Your task to perform on an android device: add a contact in the contacts app Image 0: 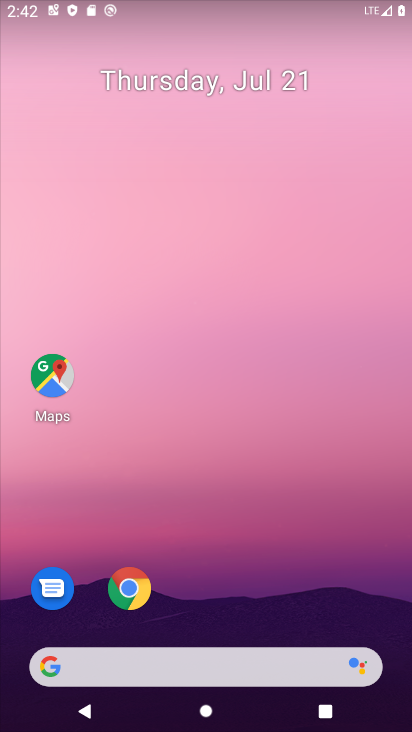
Step 0: drag from (209, 624) to (270, 262)
Your task to perform on an android device: add a contact in the contacts app Image 1: 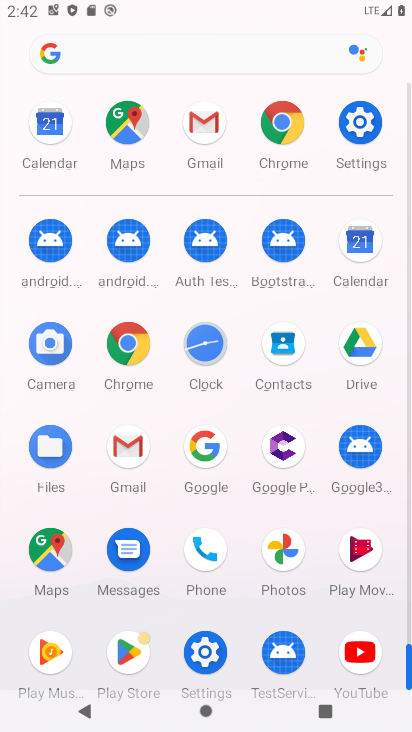
Step 1: click (290, 341)
Your task to perform on an android device: add a contact in the contacts app Image 2: 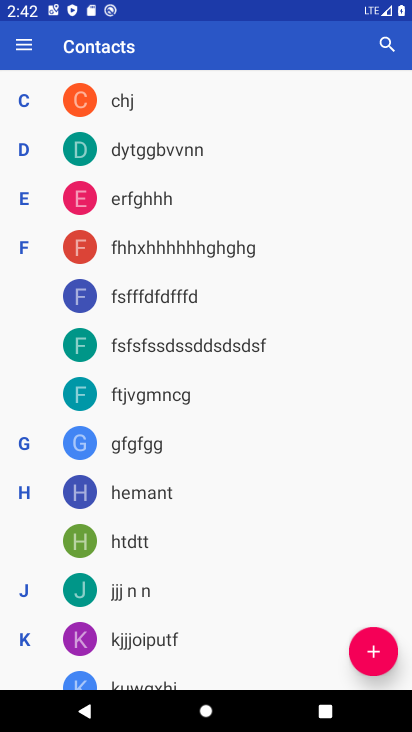
Step 2: drag from (184, 632) to (245, 229)
Your task to perform on an android device: add a contact in the contacts app Image 3: 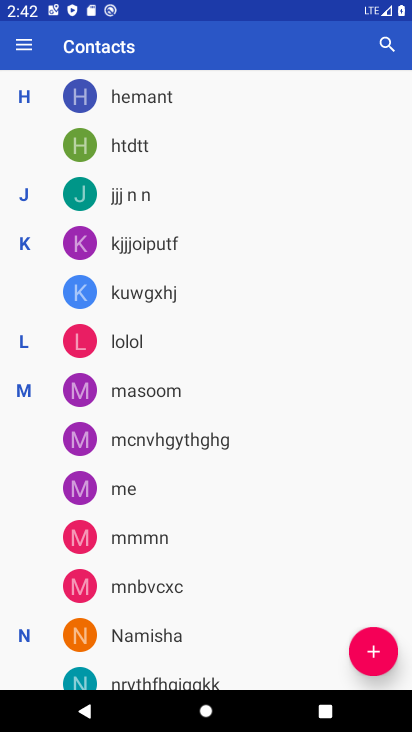
Step 3: click (377, 655)
Your task to perform on an android device: add a contact in the contacts app Image 4: 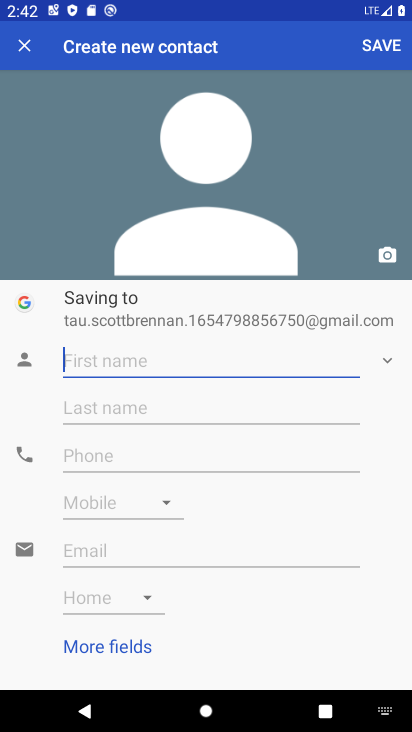
Step 4: click (100, 362)
Your task to perform on an android device: add a contact in the contacts app Image 5: 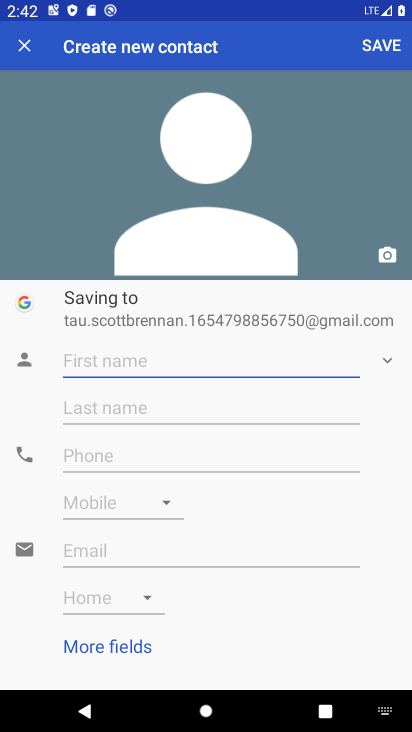
Step 5: type "maxzma"
Your task to perform on an android device: add a contact in the contacts app Image 6: 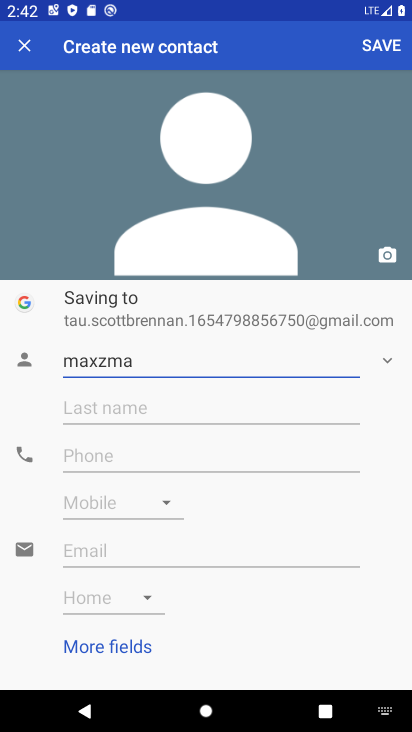
Step 6: click (105, 455)
Your task to perform on an android device: add a contact in the contacts app Image 7: 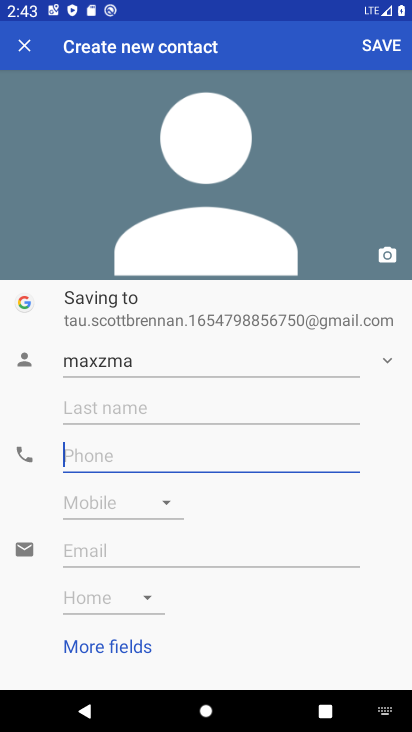
Step 7: type "192910932"
Your task to perform on an android device: add a contact in the contacts app Image 8: 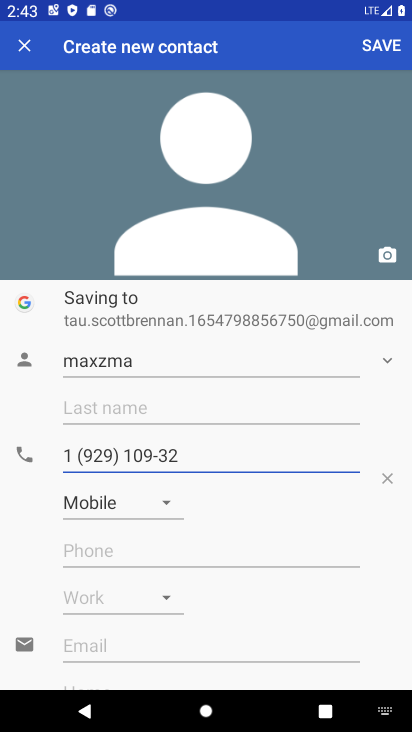
Step 8: click (351, 58)
Your task to perform on an android device: add a contact in the contacts app Image 9: 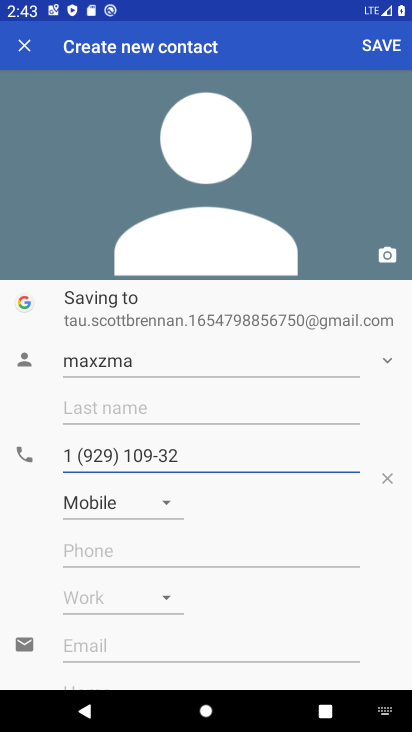
Step 9: click (387, 42)
Your task to perform on an android device: add a contact in the contacts app Image 10: 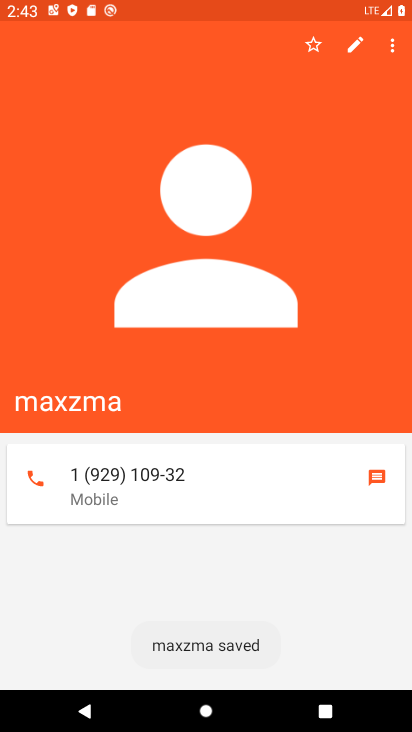
Step 10: task complete